Your task to perform on an android device: Open wifi settings Image 0: 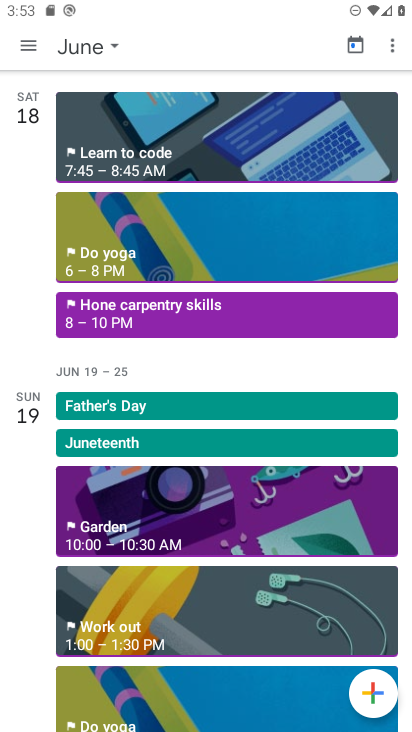
Step 0: press home button
Your task to perform on an android device: Open wifi settings Image 1: 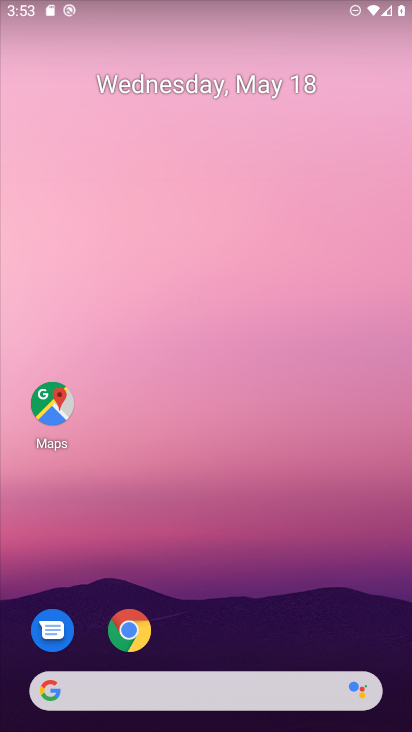
Step 1: drag from (218, 647) to (237, 44)
Your task to perform on an android device: Open wifi settings Image 2: 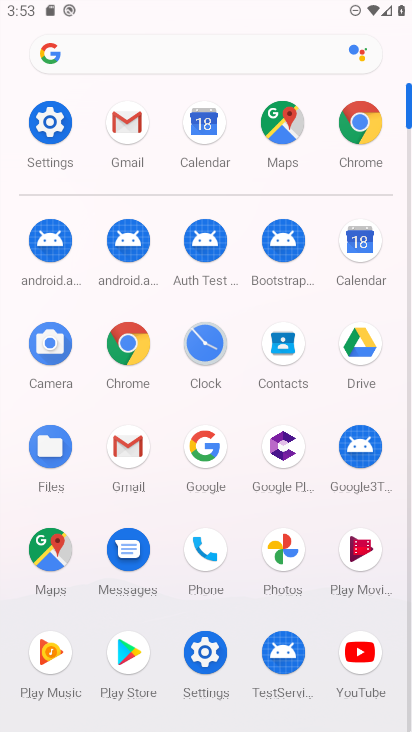
Step 2: click (45, 112)
Your task to perform on an android device: Open wifi settings Image 3: 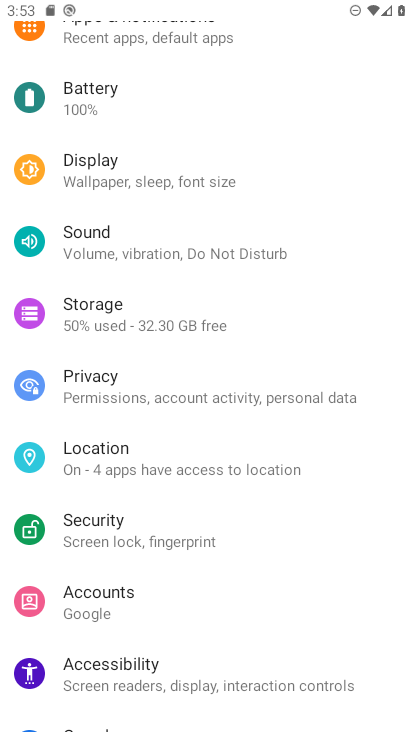
Step 3: drag from (135, 93) to (155, 602)
Your task to perform on an android device: Open wifi settings Image 4: 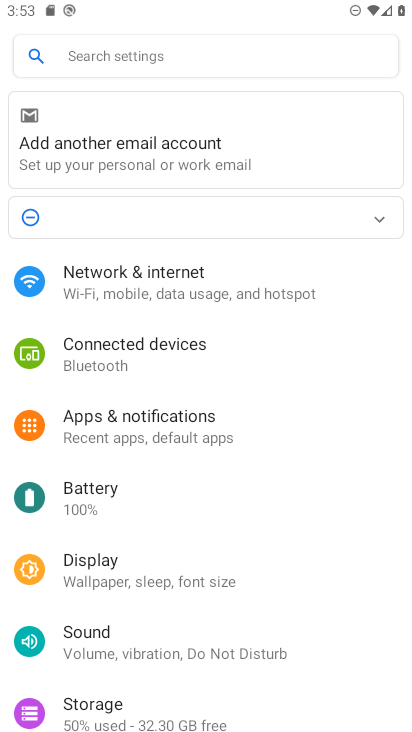
Step 4: click (166, 275)
Your task to perform on an android device: Open wifi settings Image 5: 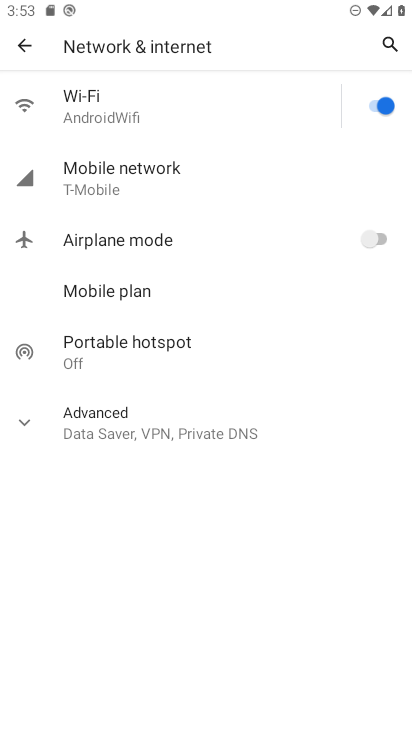
Step 5: click (39, 415)
Your task to perform on an android device: Open wifi settings Image 6: 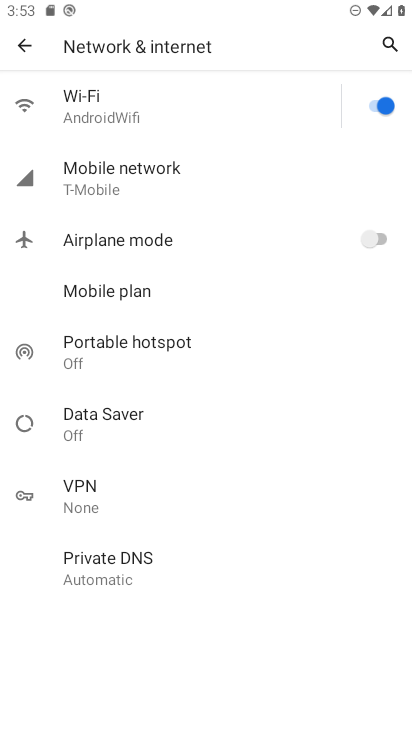
Step 6: click (114, 104)
Your task to perform on an android device: Open wifi settings Image 7: 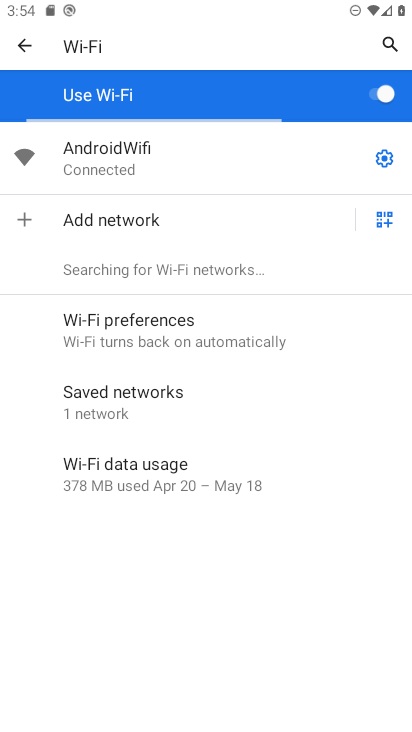
Step 7: task complete